Your task to perform on an android device: remove spam from my inbox in the gmail app Image 0: 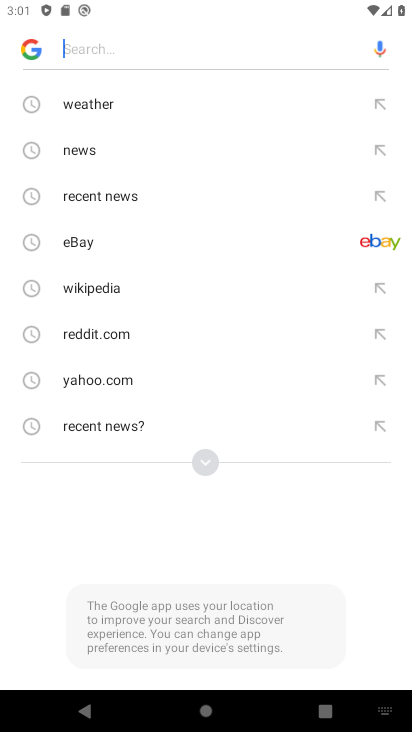
Step 0: press home button
Your task to perform on an android device: remove spam from my inbox in the gmail app Image 1: 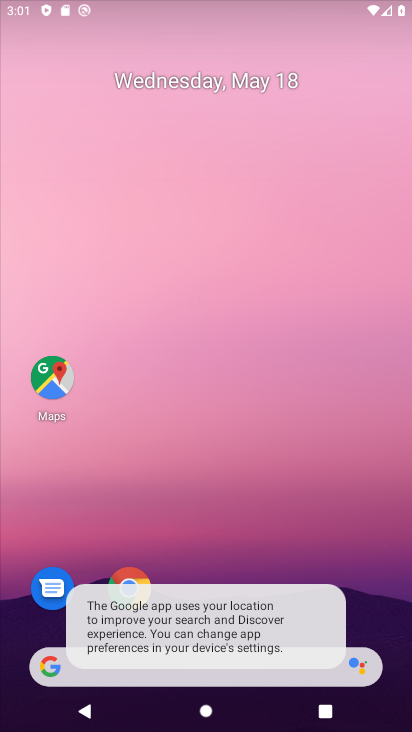
Step 1: drag from (310, 555) to (315, 0)
Your task to perform on an android device: remove spam from my inbox in the gmail app Image 2: 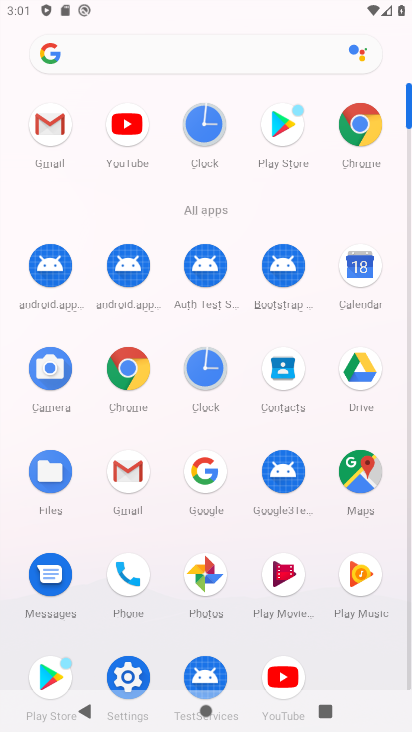
Step 2: click (61, 137)
Your task to perform on an android device: remove spam from my inbox in the gmail app Image 3: 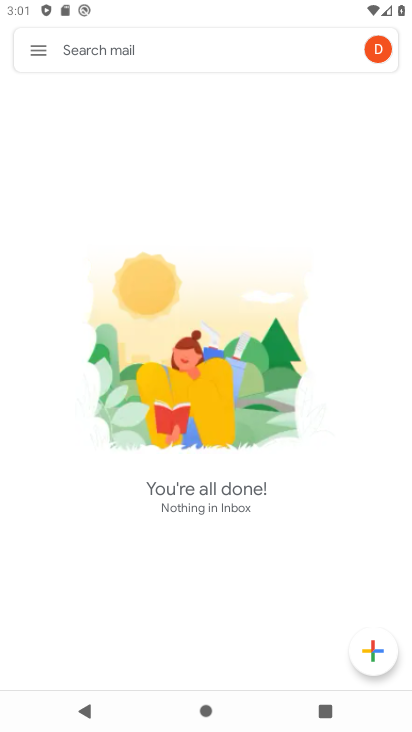
Step 3: click (26, 56)
Your task to perform on an android device: remove spam from my inbox in the gmail app Image 4: 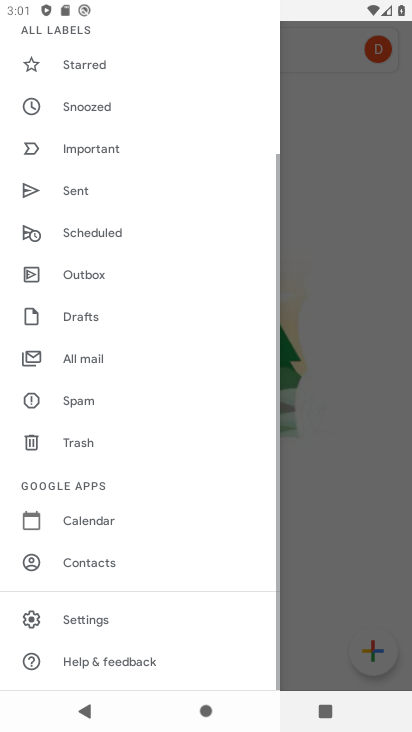
Step 4: task complete